Your task to perform on an android device: Open internet settings Image 0: 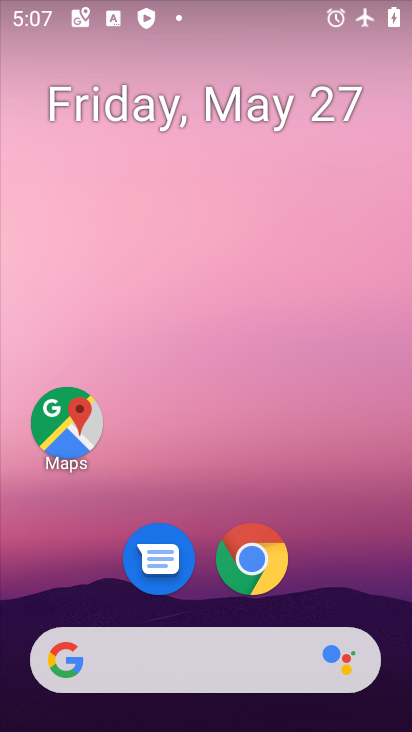
Step 0: drag from (266, 543) to (311, 41)
Your task to perform on an android device: Open internet settings Image 1: 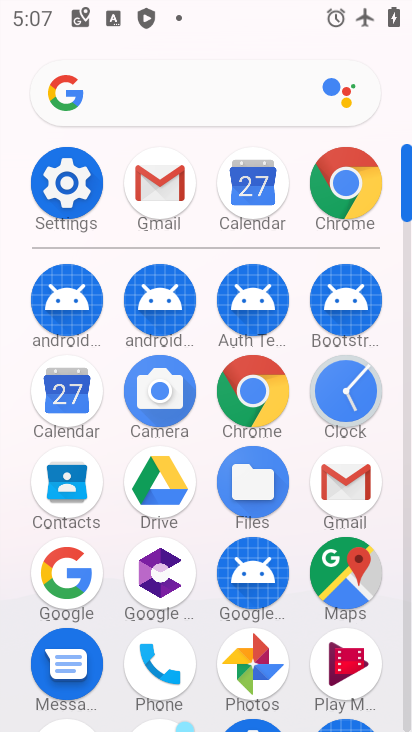
Step 1: click (88, 189)
Your task to perform on an android device: Open internet settings Image 2: 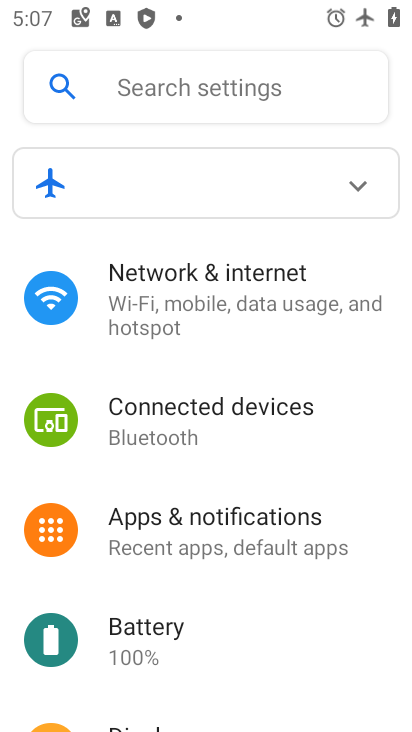
Step 2: click (300, 311)
Your task to perform on an android device: Open internet settings Image 3: 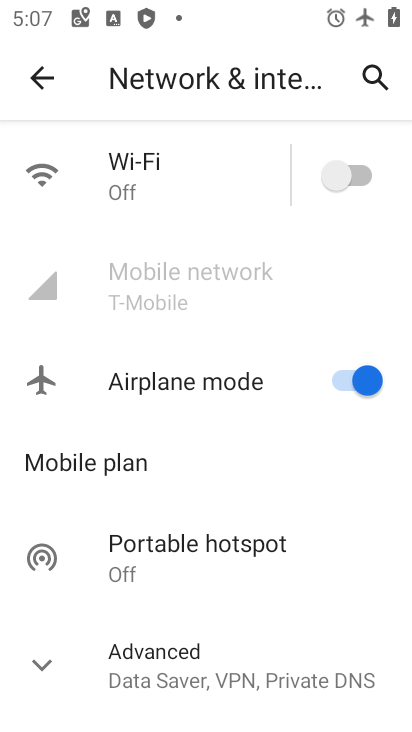
Step 3: task complete